Your task to perform on an android device: Open Chrome and go to the settings page Image 0: 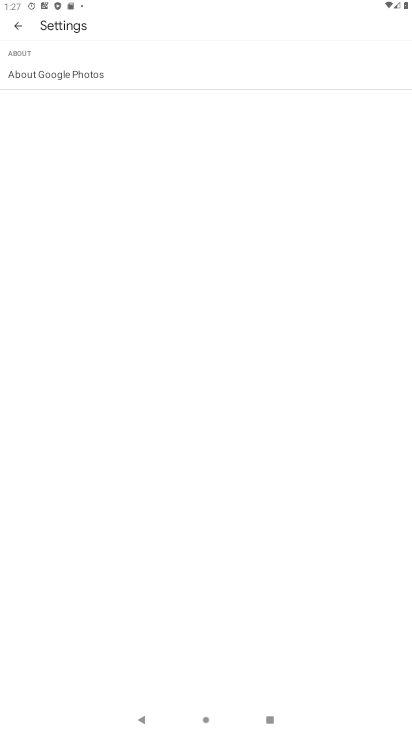
Step 0: press home button
Your task to perform on an android device: Open Chrome and go to the settings page Image 1: 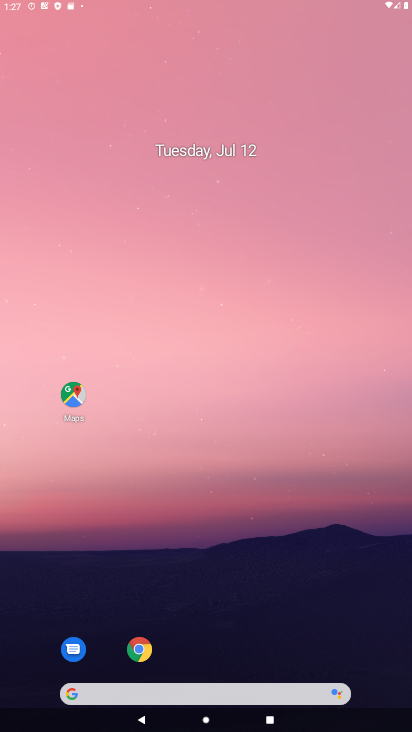
Step 1: drag from (332, 651) to (333, 34)
Your task to perform on an android device: Open Chrome and go to the settings page Image 2: 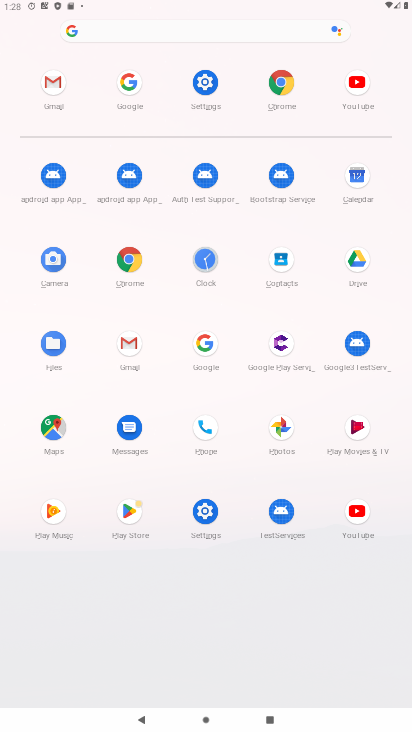
Step 2: click (138, 266)
Your task to perform on an android device: Open Chrome and go to the settings page Image 3: 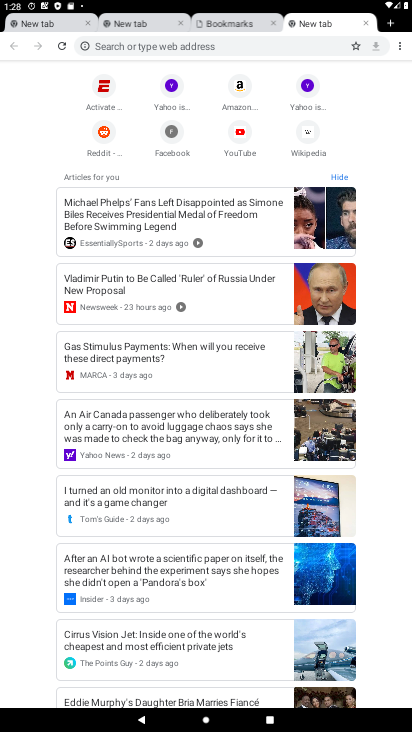
Step 3: click (125, 259)
Your task to perform on an android device: Open Chrome and go to the settings page Image 4: 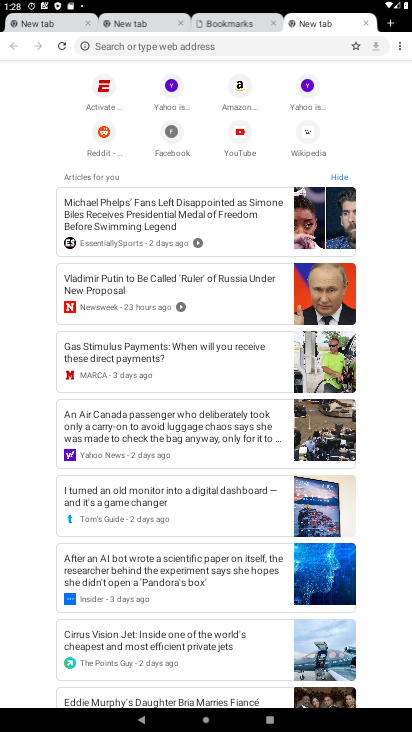
Step 4: click (399, 50)
Your task to perform on an android device: Open Chrome and go to the settings page Image 5: 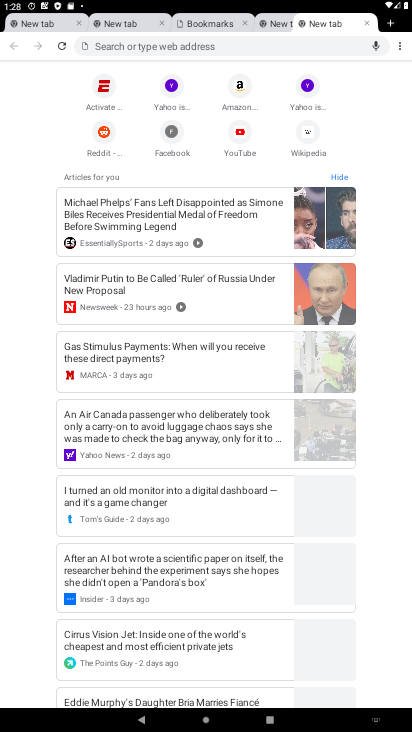
Step 5: click (400, 45)
Your task to perform on an android device: Open Chrome and go to the settings page Image 6: 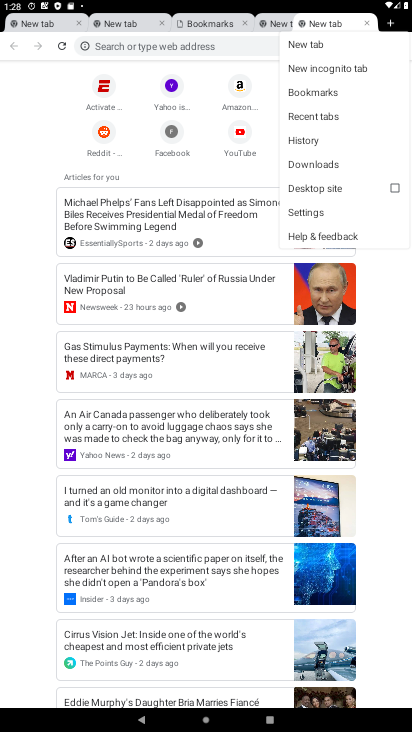
Step 6: click (320, 221)
Your task to perform on an android device: Open Chrome and go to the settings page Image 7: 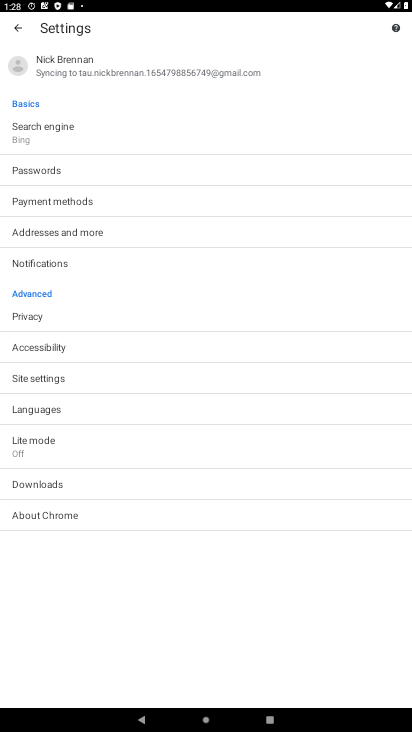
Step 7: task complete